Your task to perform on an android device: set default search engine in the chrome app Image 0: 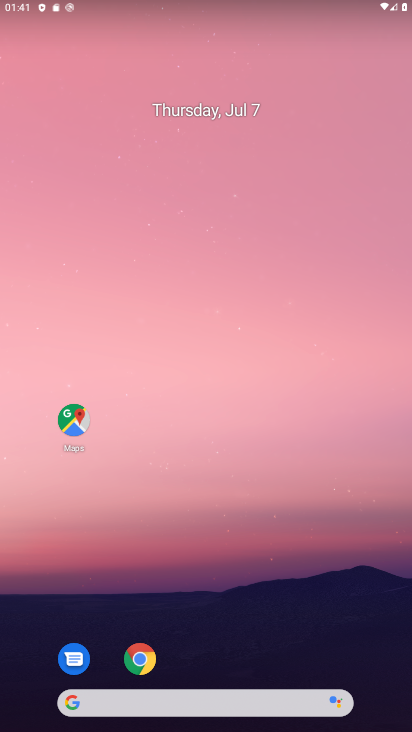
Step 0: click (134, 653)
Your task to perform on an android device: set default search engine in the chrome app Image 1: 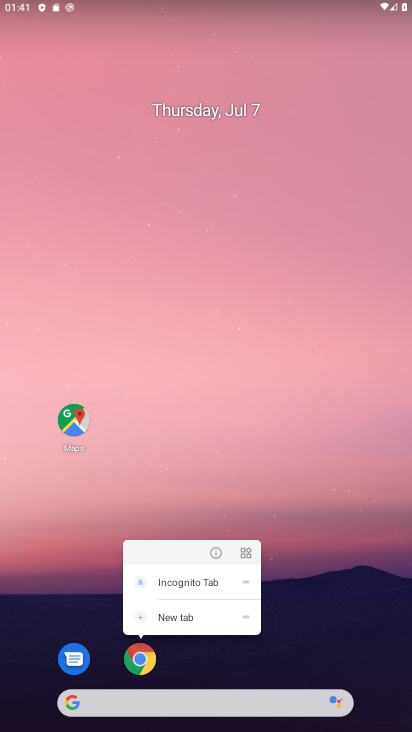
Step 1: click (139, 657)
Your task to perform on an android device: set default search engine in the chrome app Image 2: 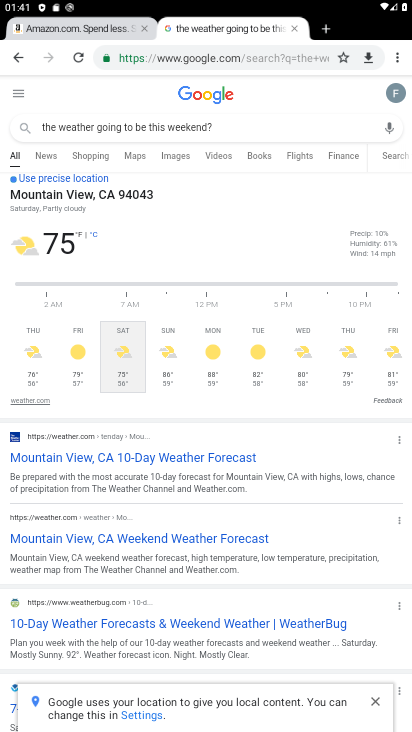
Step 2: click (391, 58)
Your task to perform on an android device: set default search engine in the chrome app Image 3: 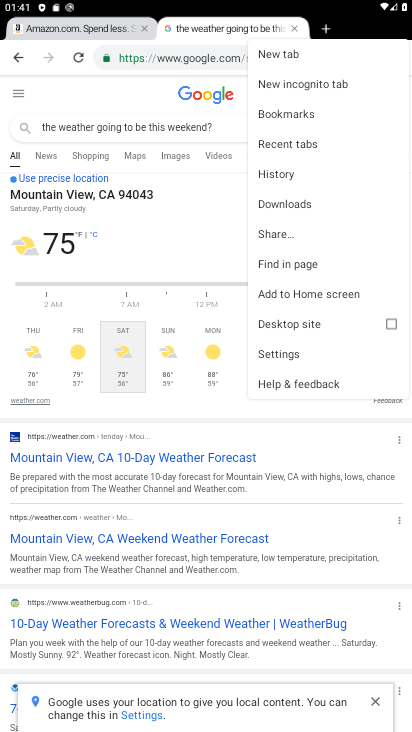
Step 3: click (310, 344)
Your task to perform on an android device: set default search engine in the chrome app Image 4: 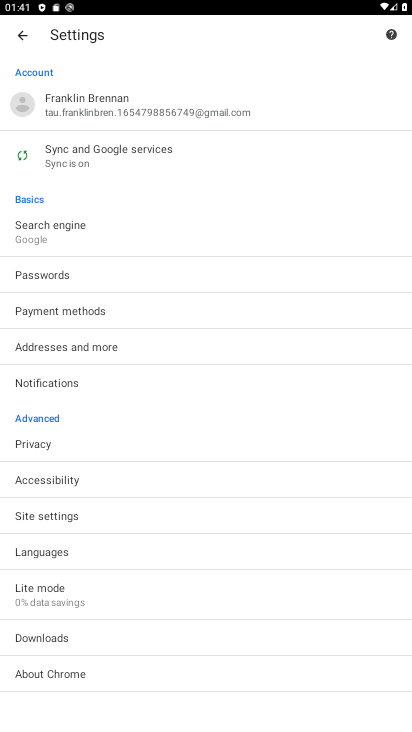
Step 4: click (71, 220)
Your task to perform on an android device: set default search engine in the chrome app Image 5: 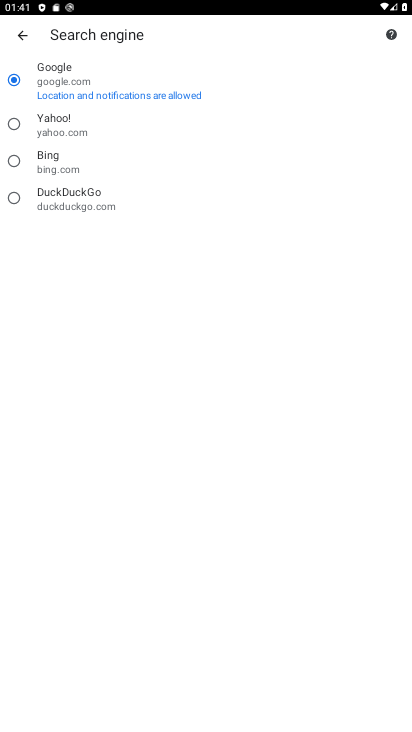
Step 5: click (18, 125)
Your task to perform on an android device: set default search engine in the chrome app Image 6: 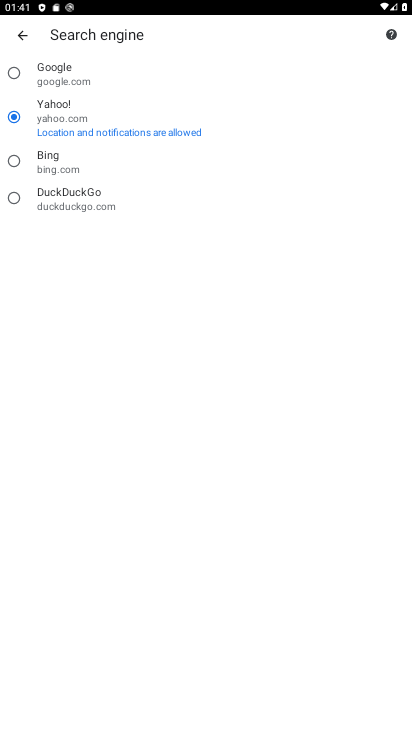
Step 6: task complete